Your task to perform on an android device: move a message to another label in the gmail app Image 0: 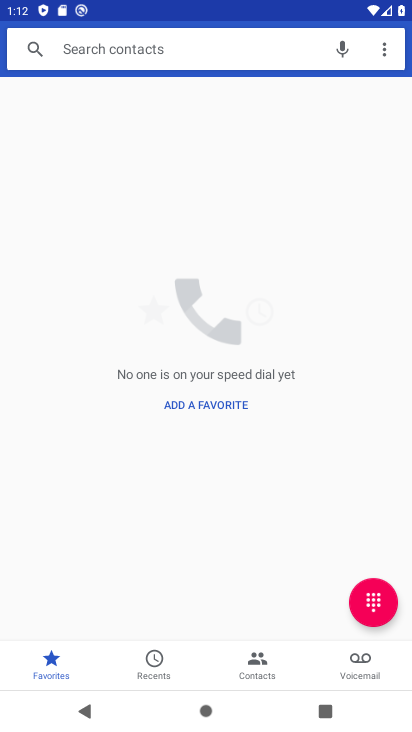
Step 0: press home button
Your task to perform on an android device: move a message to another label in the gmail app Image 1: 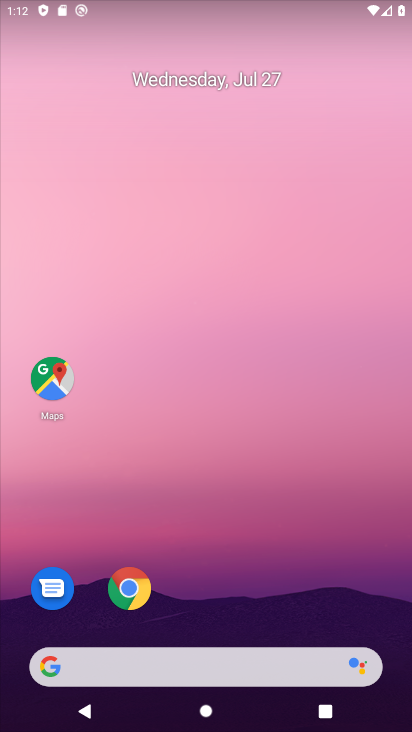
Step 1: drag from (236, 556) to (231, 20)
Your task to perform on an android device: move a message to another label in the gmail app Image 2: 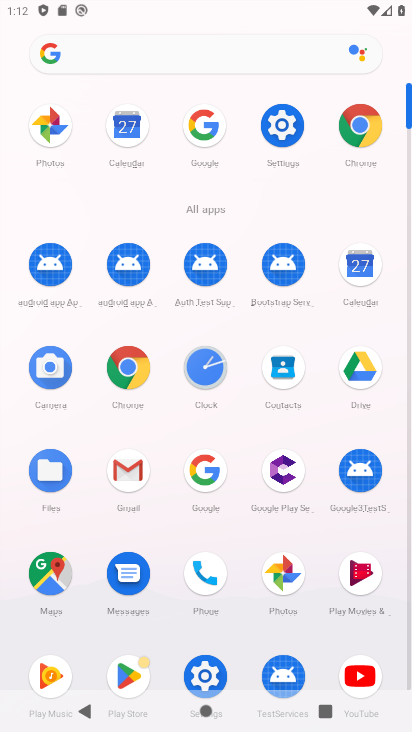
Step 2: click (128, 479)
Your task to perform on an android device: move a message to another label in the gmail app Image 3: 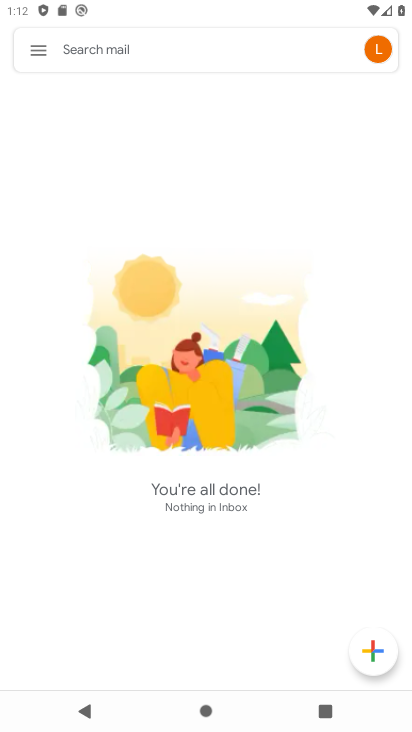
Step 3: click (38, 56)
Your task to perform on an android device: move a message to another label in the gmail app Image 4: 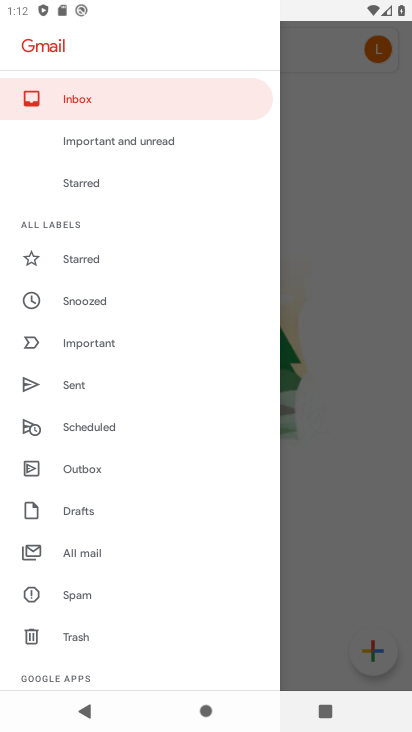
Step 4: click (100, 560)
Your task to perform on an android device: move a message to another label in the gmail app Image 5: 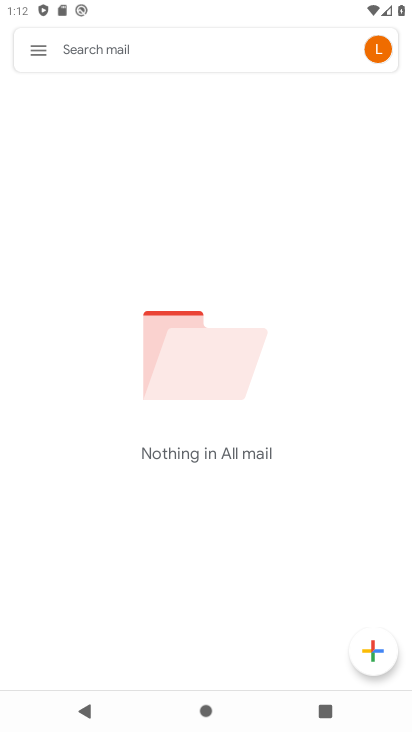
Step 5: click (33, 48)
Your task to perform on an android device: move a message to another label in the gmail app Image 6: 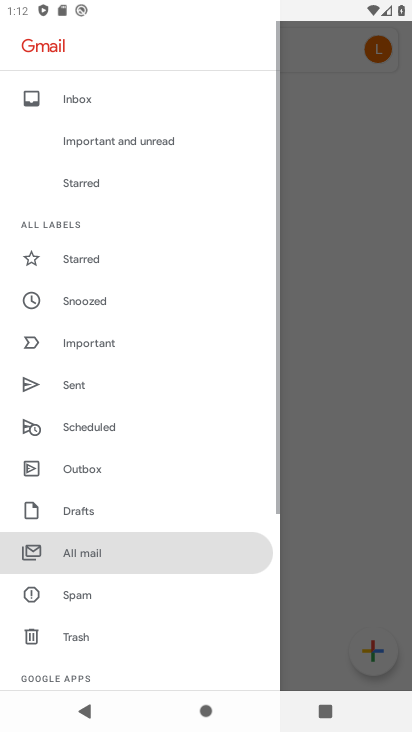
Step 6: task complete